Your task to perform on an android device: change the clock display to show seconds Image 0: 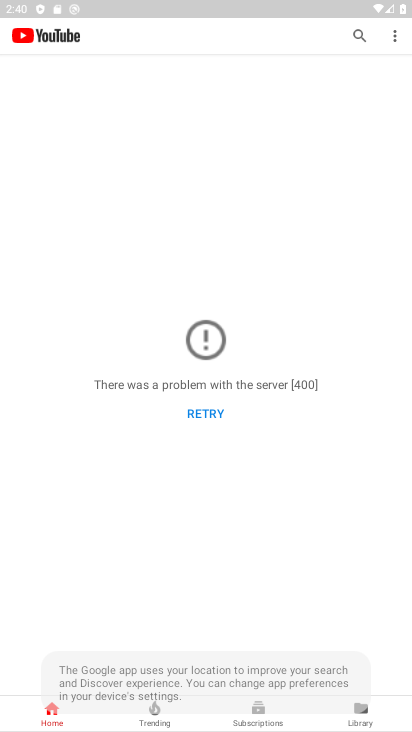
Step 0: click (26, 489)
Your task to perform on an android device: change the clock display to show seconds Image 1: 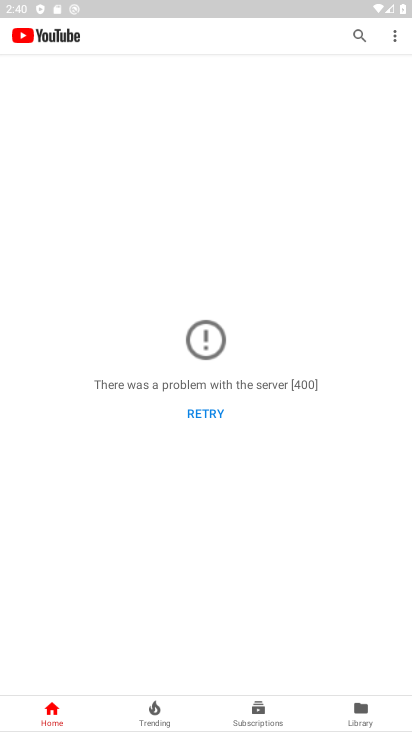
Step 1: press home button
Your task to perform on an android device: change the clock display to show seconds Image 2: 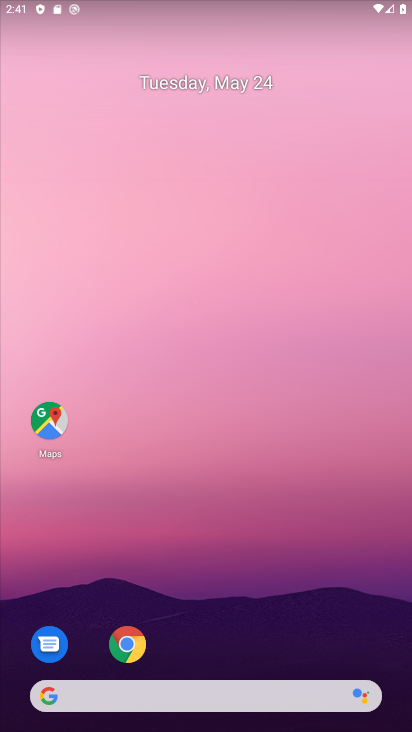
Step 2: drag from (340, 618) to (353, 200)
Your task to perform on an android device: change the clock display to show seconds Image 3: 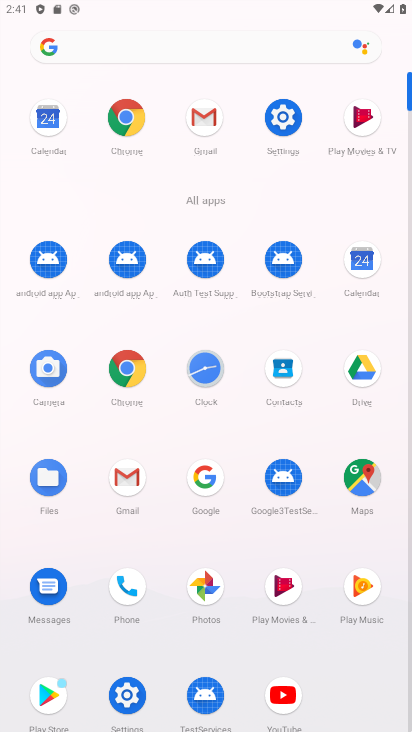
Step 3: click (199, 387)
Your task to perform on an android device: change the clock display to show seconds Image 4: 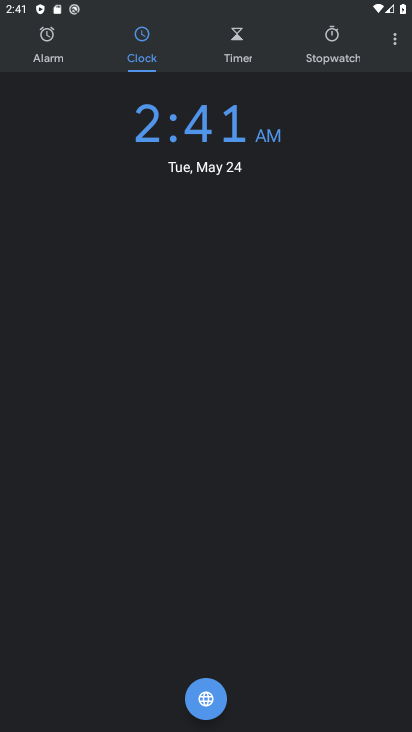
Step 4: click (400, 48)
Your task to perform on an android device: change the clock display to show seconds Image 5: 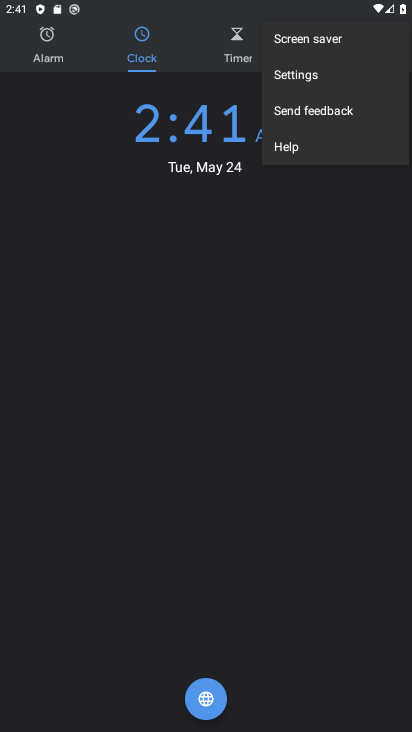
Step 5: click (355, 68)
Your task to perform on an android device: change the clock display to show seconds Image 6: 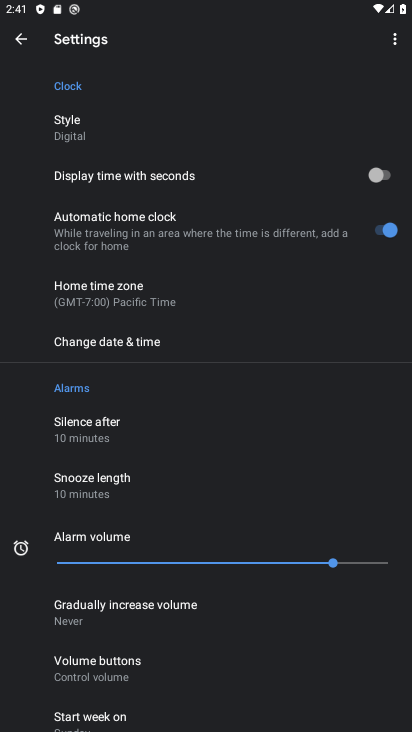
Step 6: click (400, 187)
Your task to perform on an android device: change the clock display to show seconds Image 7: 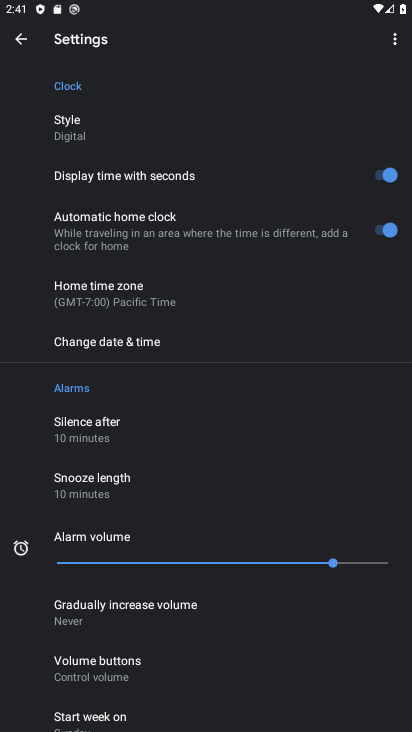
Step 7: task complete